Your task to perform on an android device: Open Chrome and go to settings Image 0: 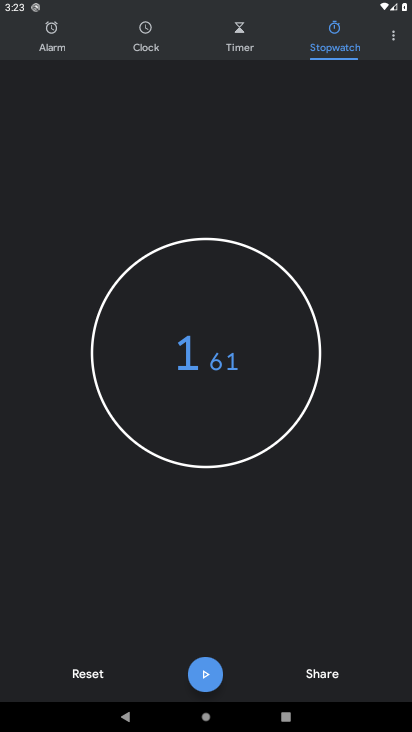
Step 0: press home button
Your task to perform on an android device: Open Chrome and go to settings Image 1: 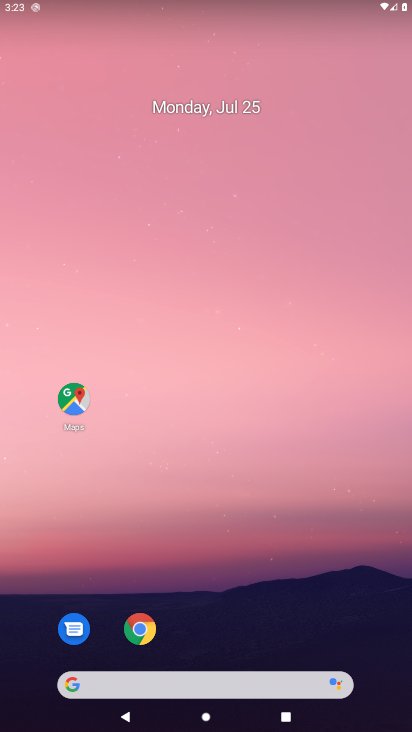
Step 1: click (138, 632)
Your task to perform on an android device: Open Chrome and go to settings Image 2: 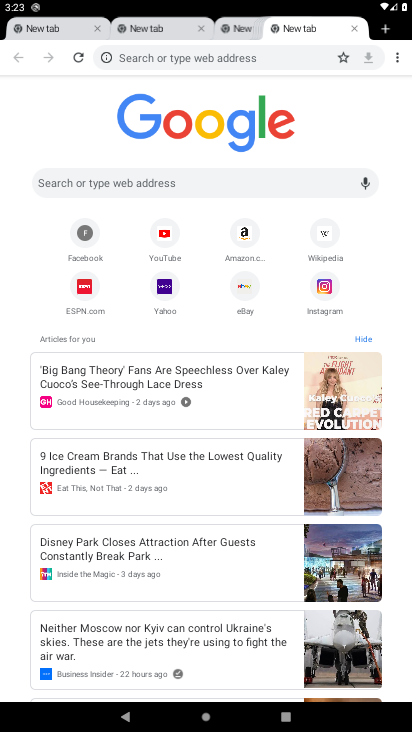
Step 2: click (399, 53)
Your task to perform on an android device: Open Chrome and go to settings Image 3: 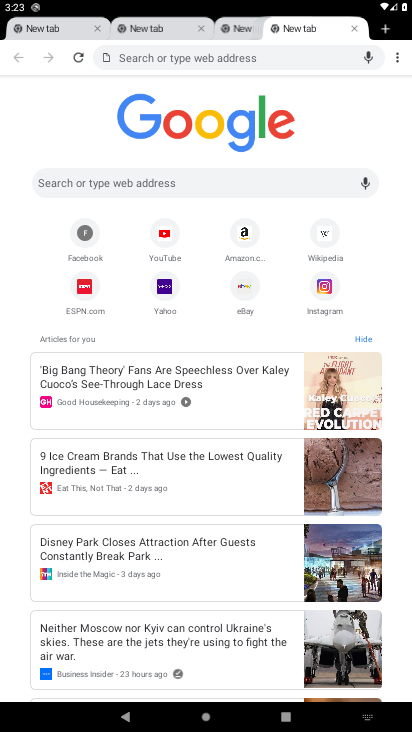
Step 3: click (389, 60)
Your task to perform on an android device: Open Chrome and go to settings Image 4: 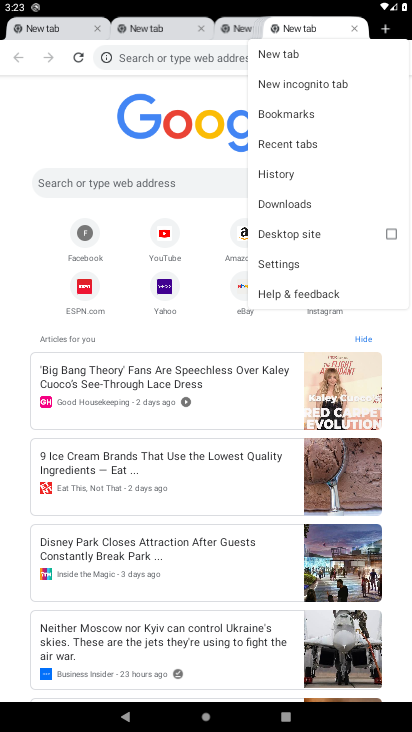
Step 4: click (292, 264)
Your task to perform on an android device: Open Chrome and go to settings Image 5: 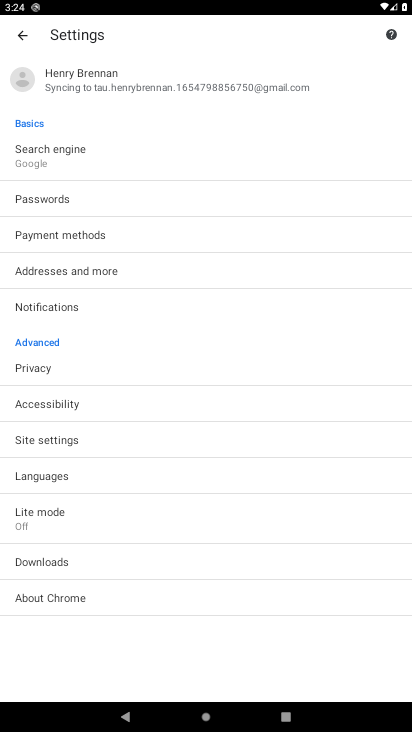
Step 5: task complete